Your task to perform on an android device: check google app version Image 0: 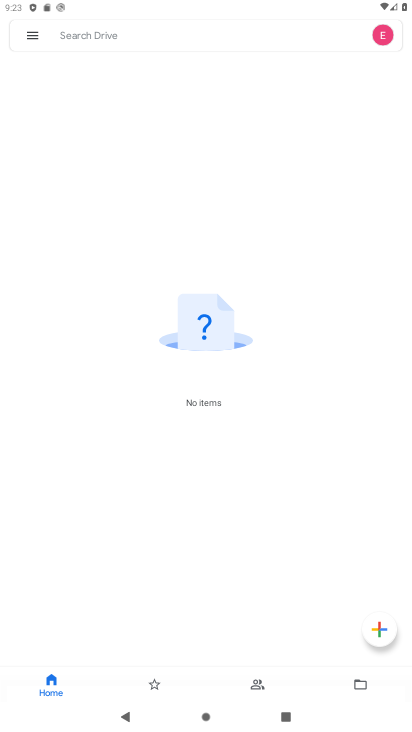
Step 0: press home button
Your task to perform on an android device: check google app version Image 1: 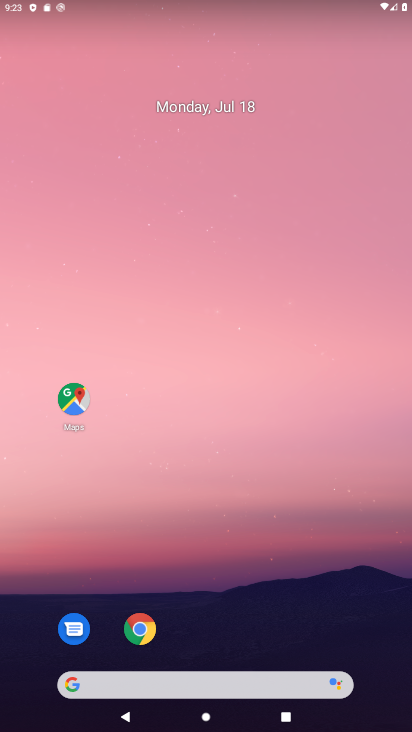
Step 1: drag from (166, 684) to (144, 178)
Your task to perform on an android device: check google app version Image 2: 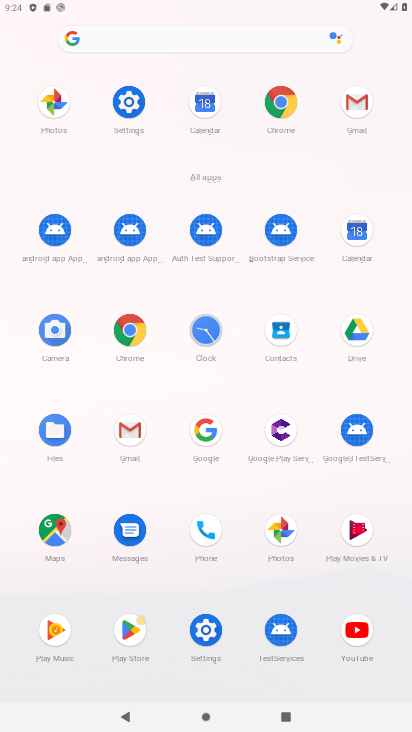
Step 2: click (204, 424)
Your task to perform on an android device: check google app version Image 3: 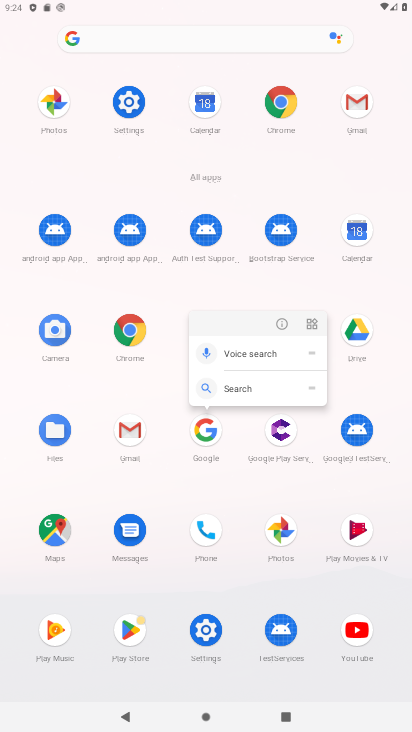
Step 3: click (281, 326)
Your task to perform on an android device: check google app version Image 4: 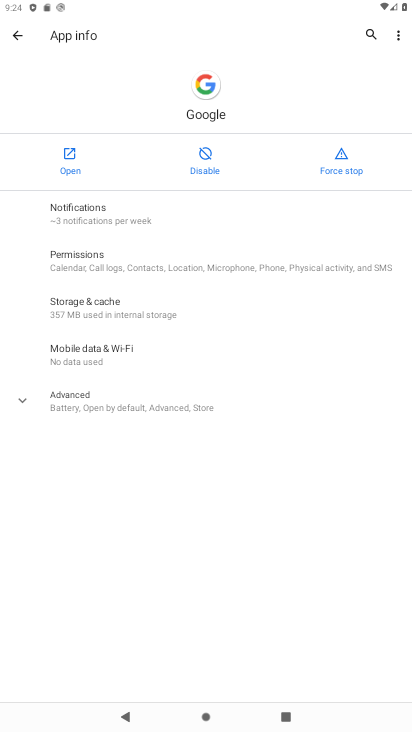
Step 4: click (98, 410)
Your task to perform on an android device: check google app version Image 5: 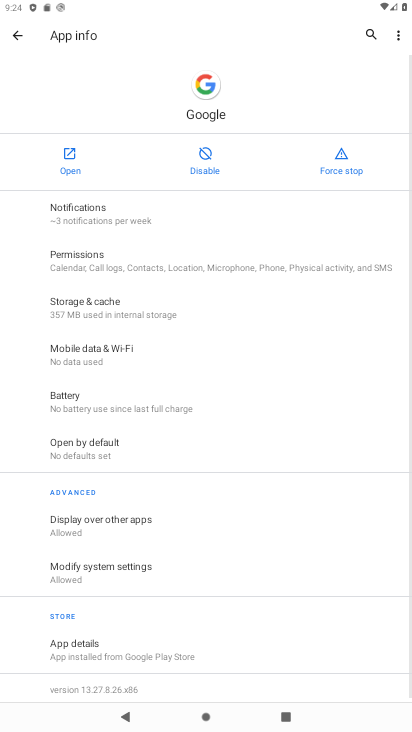
Step 5: task complete